Your task to perform on an android device: change the clock display to analog Image 0: 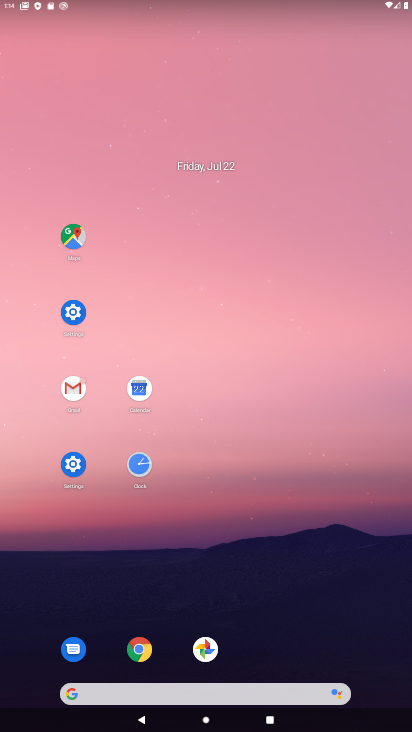
Step 0: click (132, 459)
Your task to perform on an android device: change the clock display to analog Image 1: 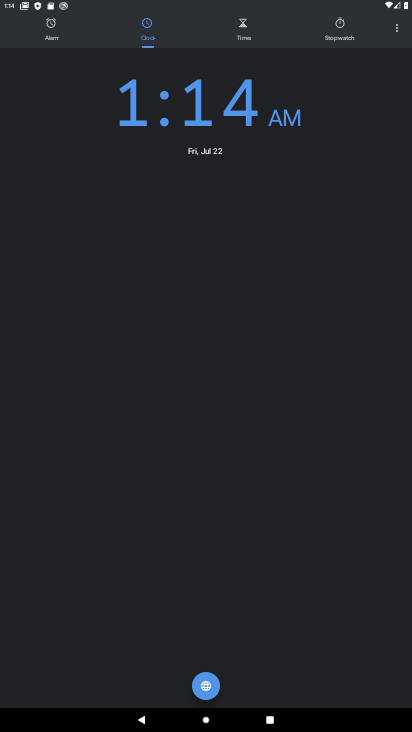
Step 1: click (391, 30)
Your task to perform on an android device: change the clock display to analog Image 2: 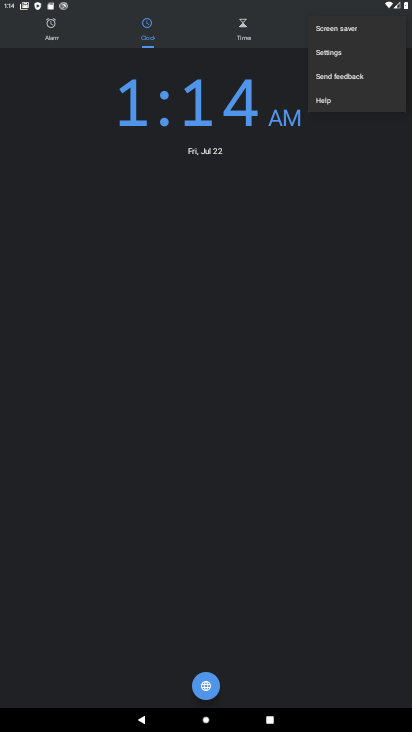
Step 2: click (327, 50)
Your task to perform on an android device: change the clock display to analog Image 3: 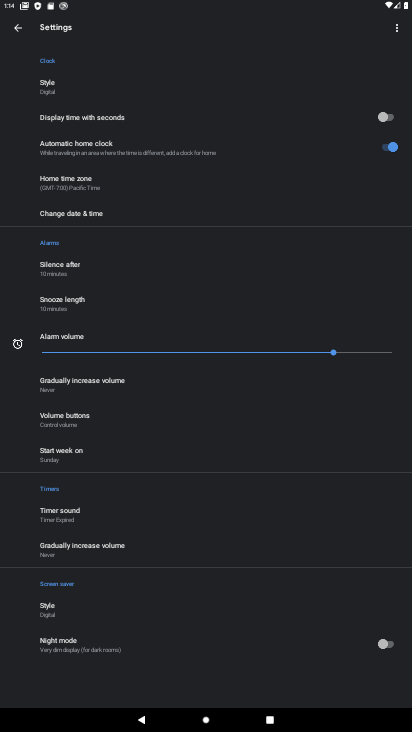
Step 3: click (46, 80)
Your task to perform on an android device: change the clock display to analog Image 4: 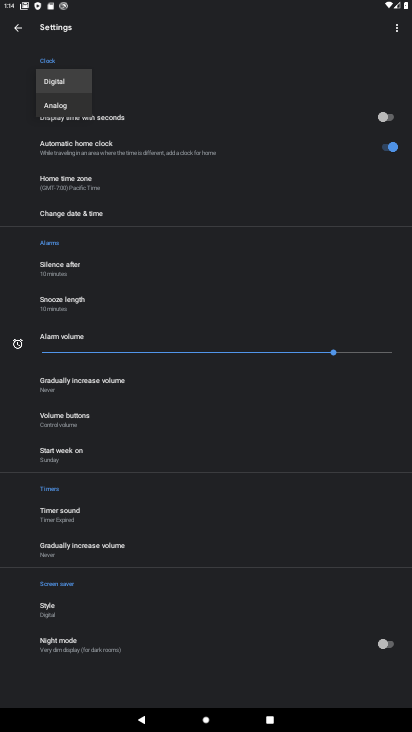
Step 4: click (50, 108)
Your task to perform on an android device: change the clock display to analog Image 5: 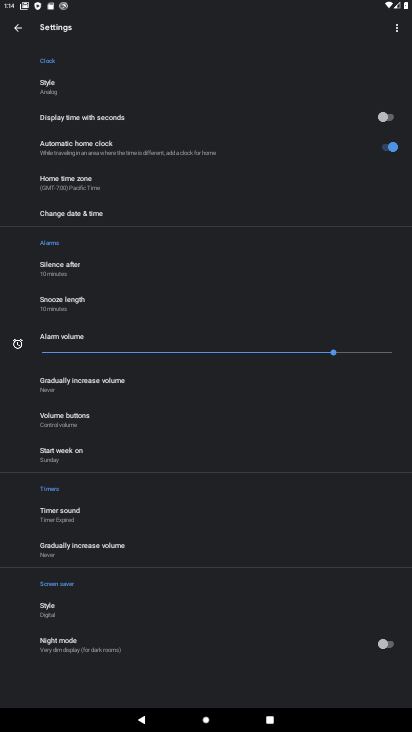
Step 5: task complete